Your task to perform on an android device: Open Google Maps Image 0: 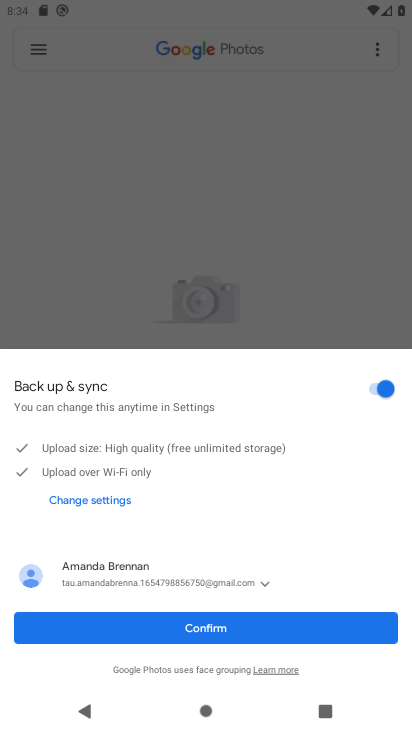
Step 0: press home button
Your task to perform on an android device: Open Google Maps Image 1: 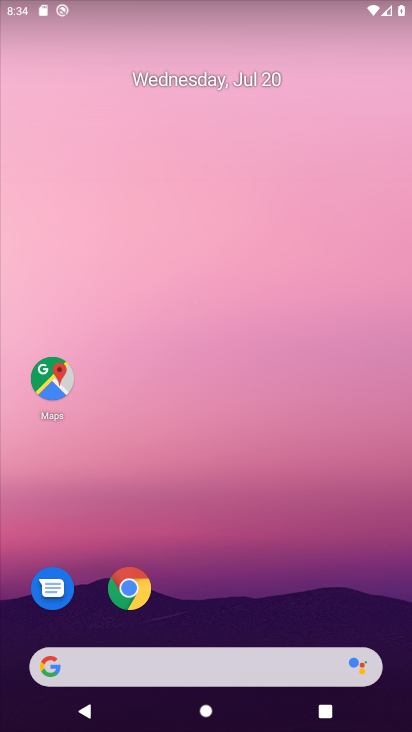
Step 1: click (45, 379)
Your task to perform on an android device: Open Google Maps Image 2: 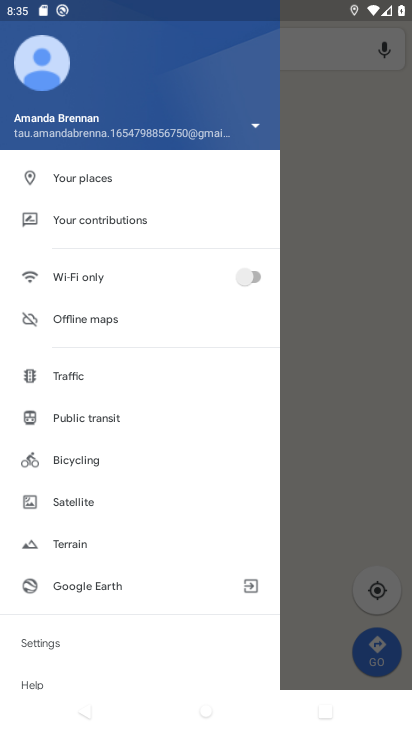
Step 2: click (333, 389)
Your task to perform on an android device: Open Google Maps Image 3: 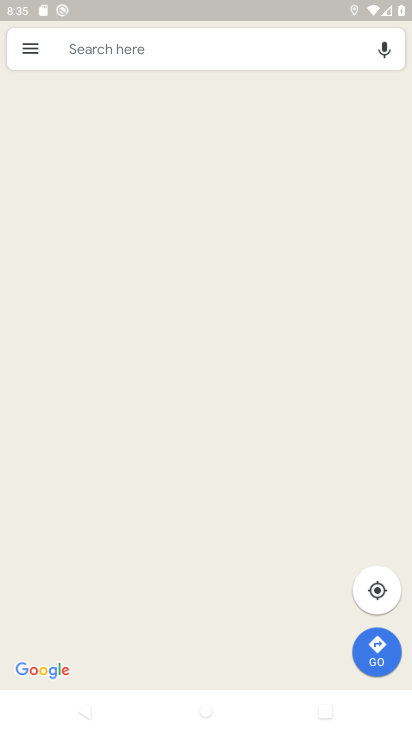
Step 3: click (372, 648)
Your task to perform on an android device: Open Google Maps Image 4: 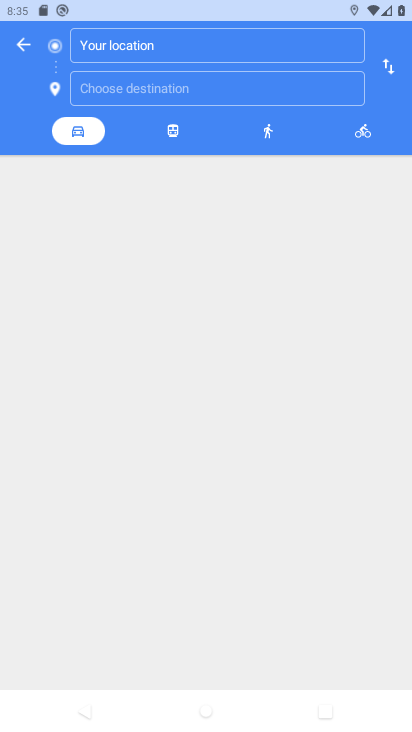
Step 4: task complete